Your task to perform on an android device: toggle translation in the chrome app Image 0: 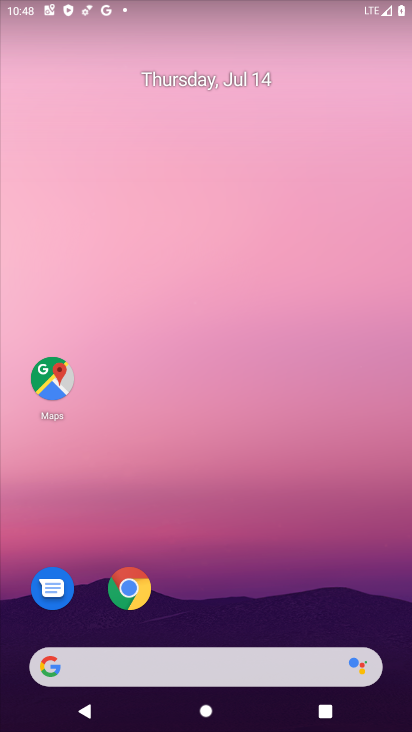
Step 0: drag from (126, 682) to (278, 200)
Your task to perform on an android device: toggle translation in the chrome app Image 1: 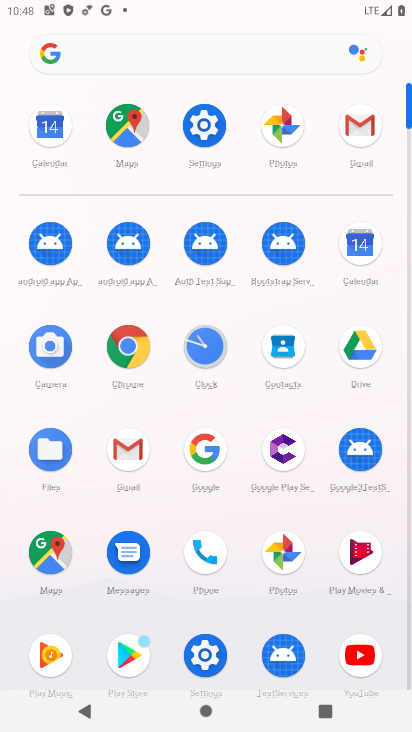
Step 1: click (135, 347)
Your task to perform on an android device: toggle translation in the chrome app Image 2: 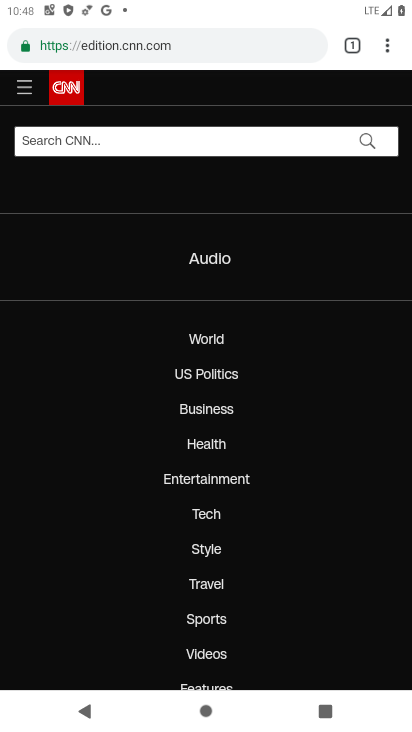
Step 2: drag from (388, 54) to (230, 544)
Your task to perform on an android device: toggle translation in the chrome app Image 3: 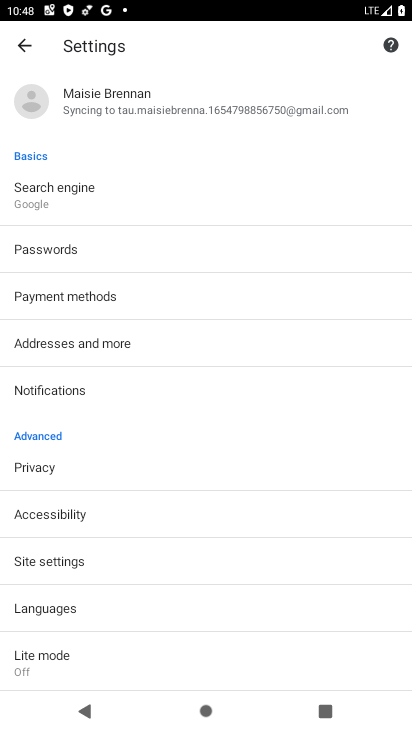
Step 3: click (60, 614)
Your task to perform on an android device: toggle translation in the chrome app Image 4: 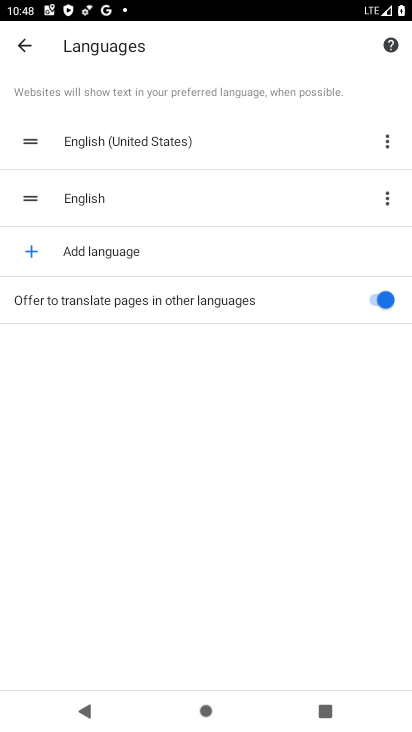
Step 4: click (380, 296)
Your task to perform on an android device: toggle translation in the chrome app Image 5: 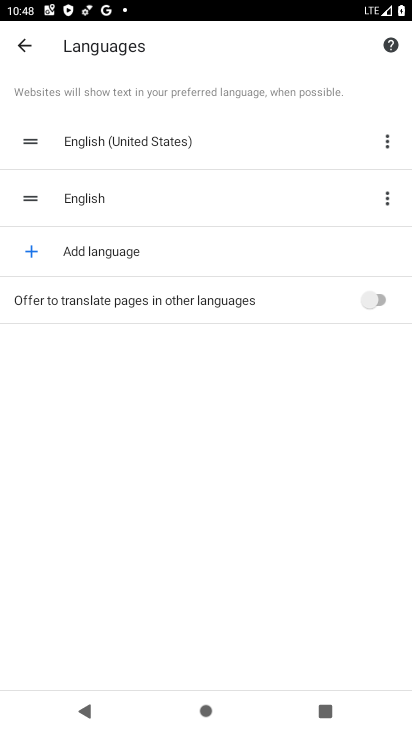
Step 5: task complete